Your task to perform on an android device: turn on location history Image 0: 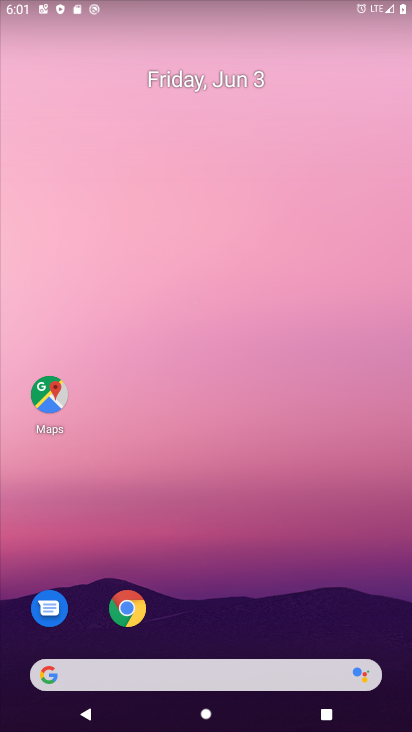
Step 0: drag from (251, 602) to (369, 229)
Your task to perform on an android device: turn on location history Image 1: 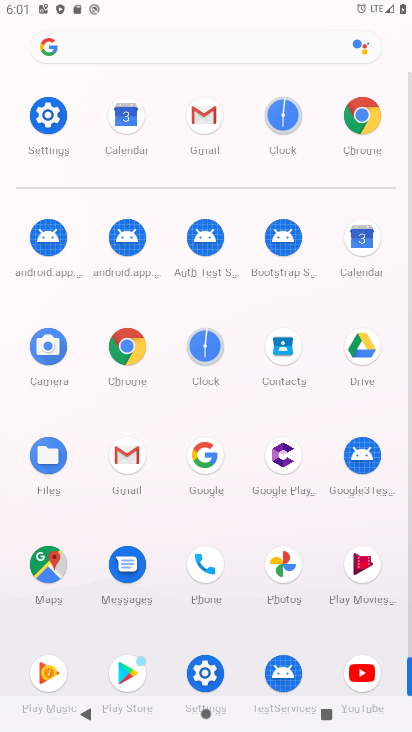
Step 1: click (49, 126)
Your task to perform on an android device: turn on location history Image 2: 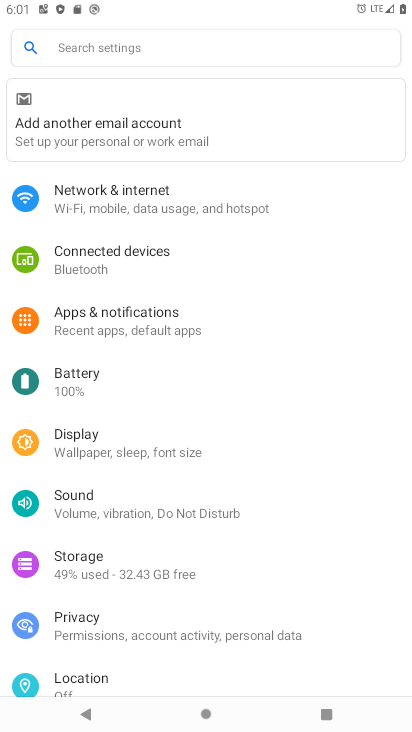
Step 2: click (167, 673)
Your task to perform on an android device: turn on location history Image 3: 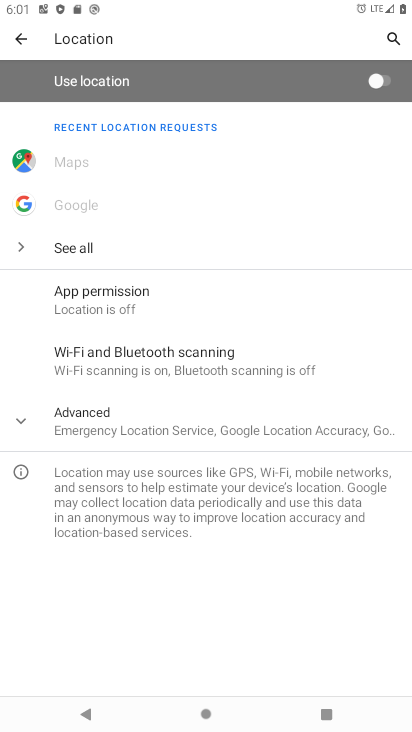
Step 3: click (217, 429)
Your task to perform on an android device: turn on location history Image 4: 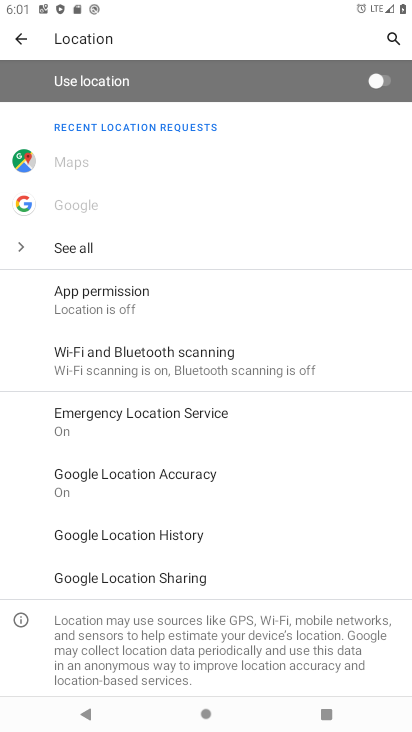
Step 4: click (169, 530)
Your task to perform on an android device: turn on location history Image 5: 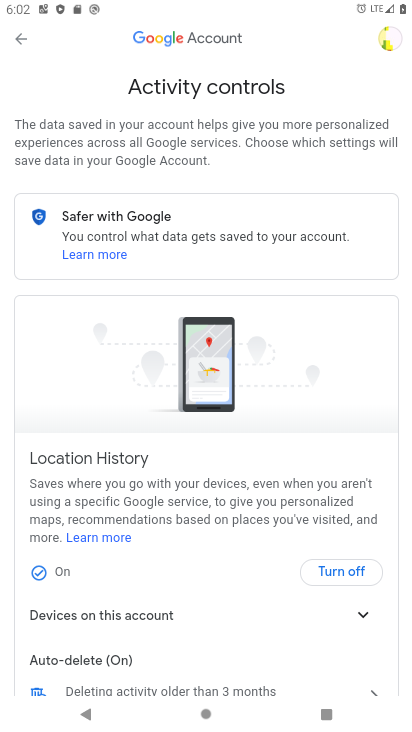
Step 5: click (34, 578)
Your task to perform on an android device: turn on location history Image 6: 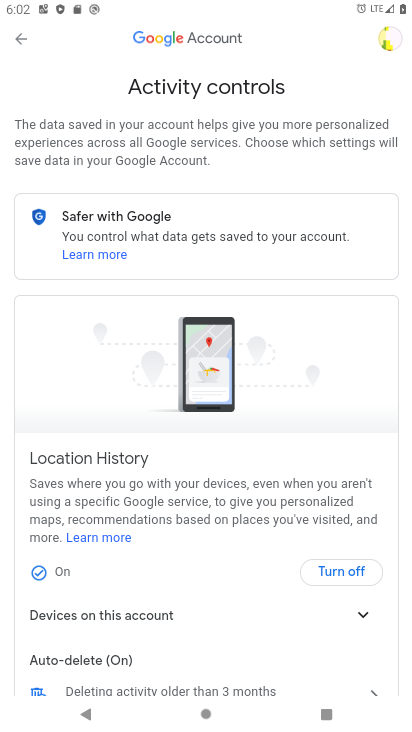
Step 6: task complete